Your task to perform on an android device: Search for seafood restaurants on Google Maps Image 0: 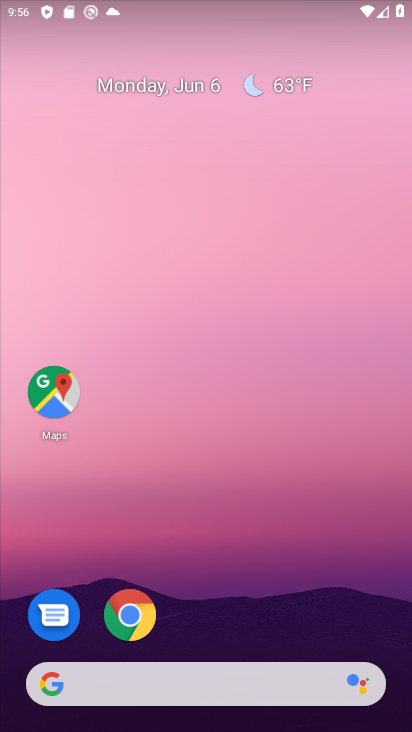
Step 0: press home button
Your task to perform on an android device: Search for seafood restaurants on Google Maps Image 1: 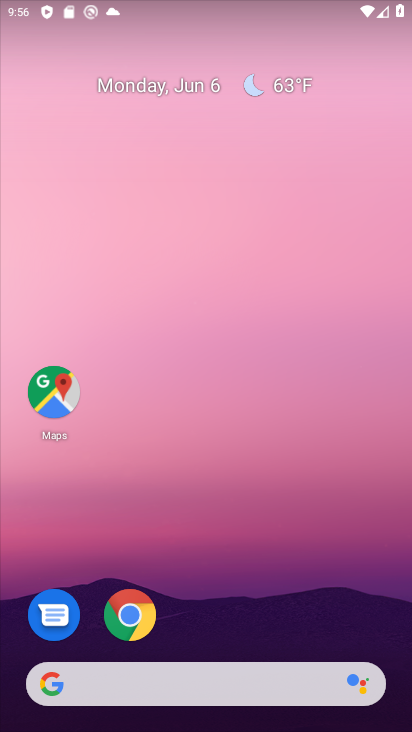
Step 1: click (53, 387)
Your task to perform on an android device: Search for seafood restaurants on Google Maps Image 2: 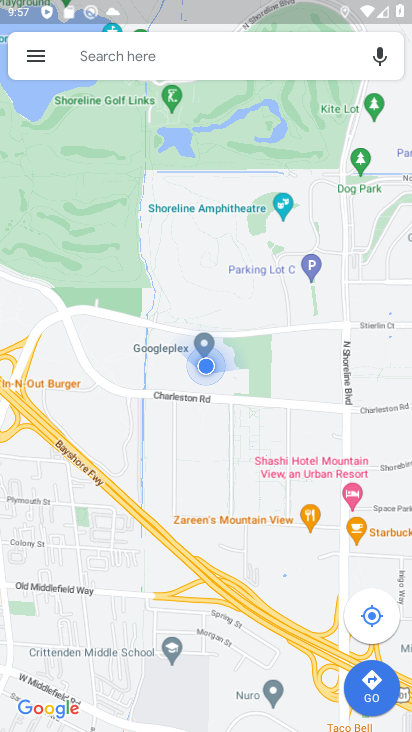
Step 2: click (130, 50)
Your task to perform on an android device: Search for seafood restaurants on Google Maps Image 3: 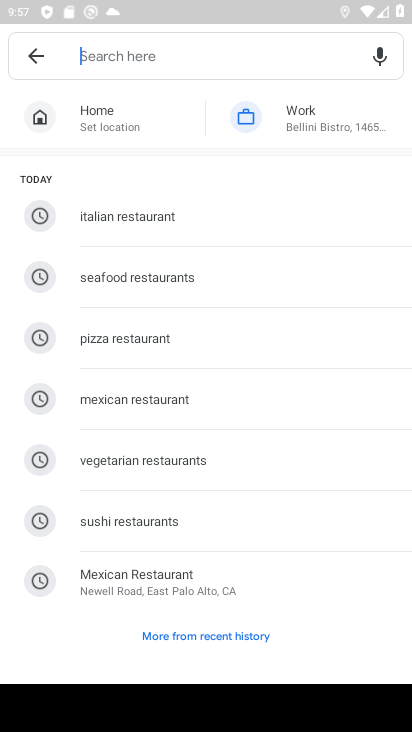
Step 3: click (164, 280)
Your task to perform on an android device: Search for seafood restaurants on Google Maps Image 4: 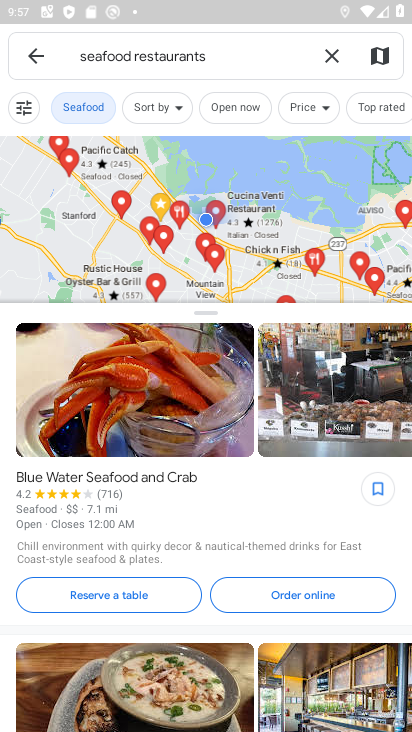
Step 4: task complete